Your task to perform on an android device: open wifi settings Image 0: 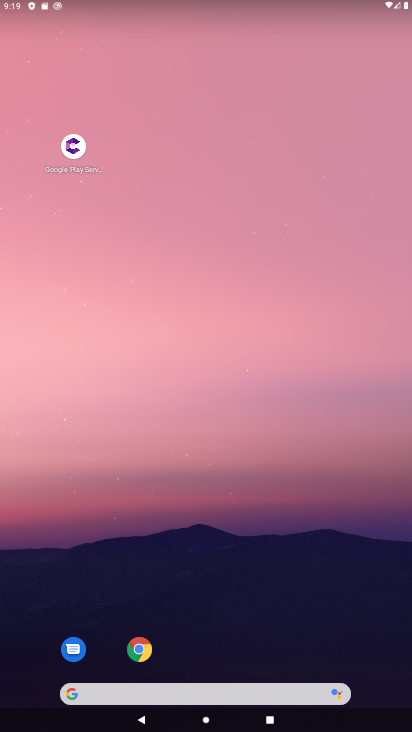
Step 0: drag from (216, 452) to (225, 31)
Your task to perform on an android device: open wifi settings Image 1: 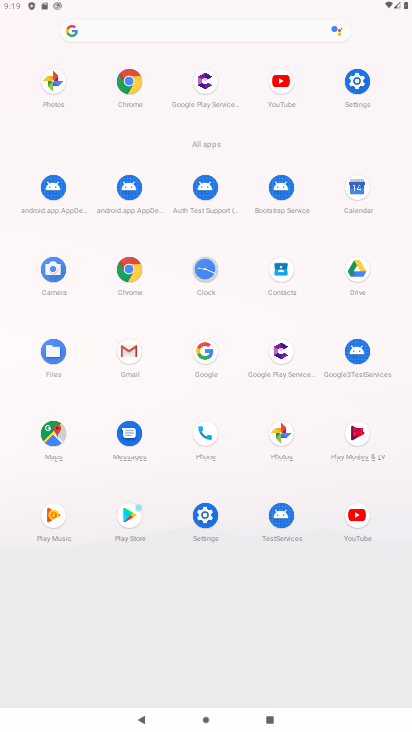
Step 1: click (207, 519)
Your task to perform on an android device: open wifi settings Image 2: 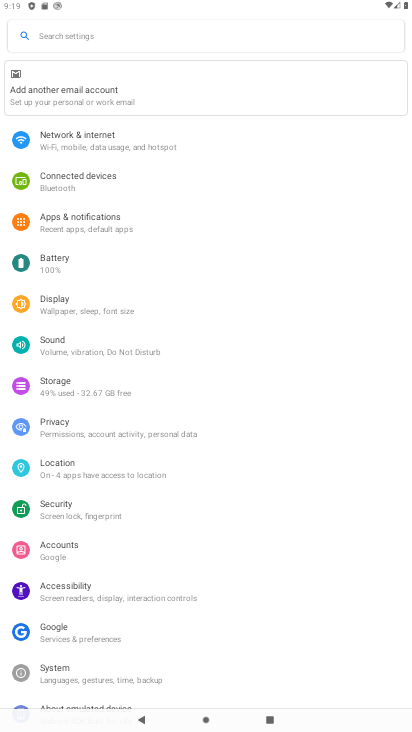
Step 2: click (60, 143)
Your task to perform on an android device: open wifi settings Image 3: 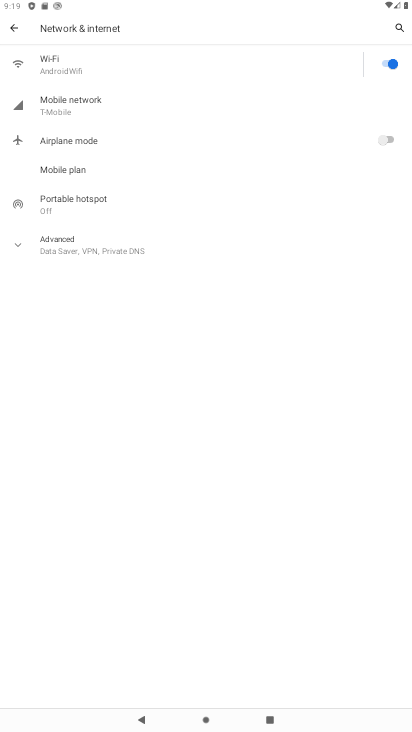
Step 3: task complete